Your task to perform on an android device: turn vacation reply on in the gmail app Image 0: 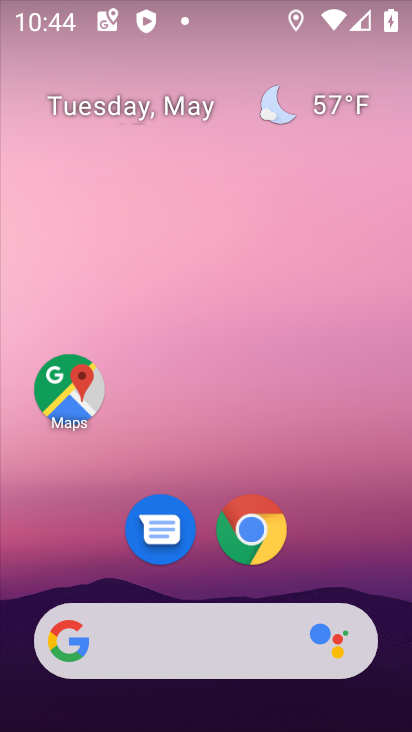
Step 0: drag from (201, 568) to (202, 55)
Your task to perform on an android device: turn vacation reply on in the gmail app Image 1: 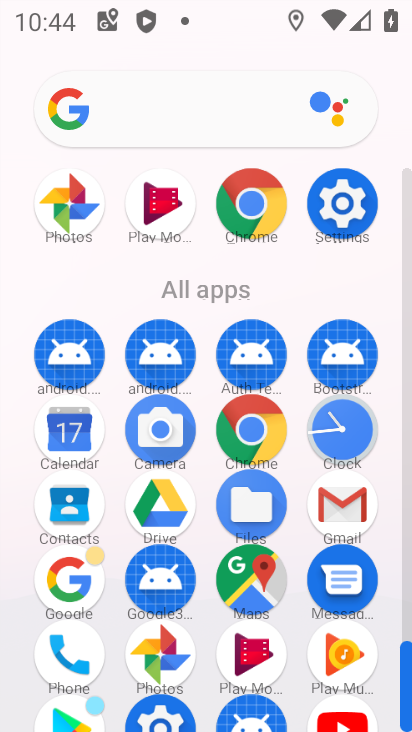
Step 1: click (351, 492)
Your task to perform on an android device: turn vacation reply on in the gmail app Image 2: 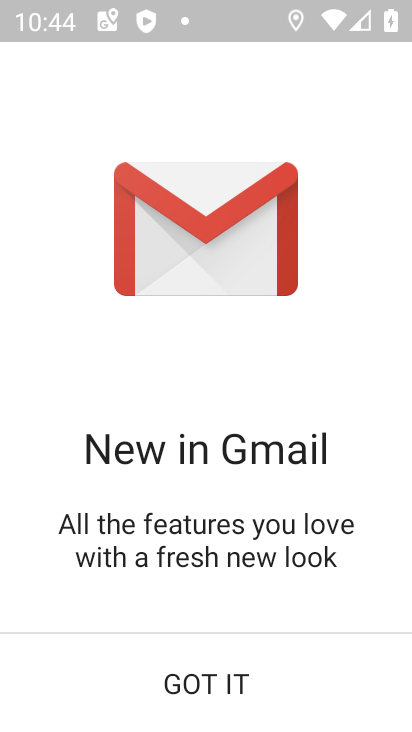
Step 2: click (178, 699)
Your task to perform on an android device: turn vacation reply on in the gmail app Image 3: 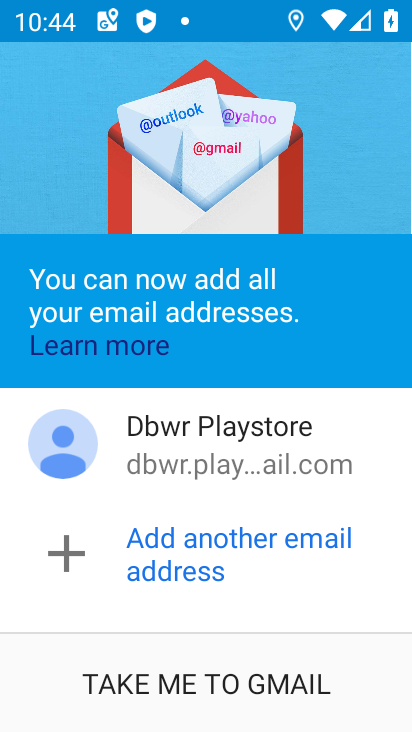
Step 3: click (178, 699)
Your task to perform on an android device: turn vacation reply on in the gmail app Image 4: 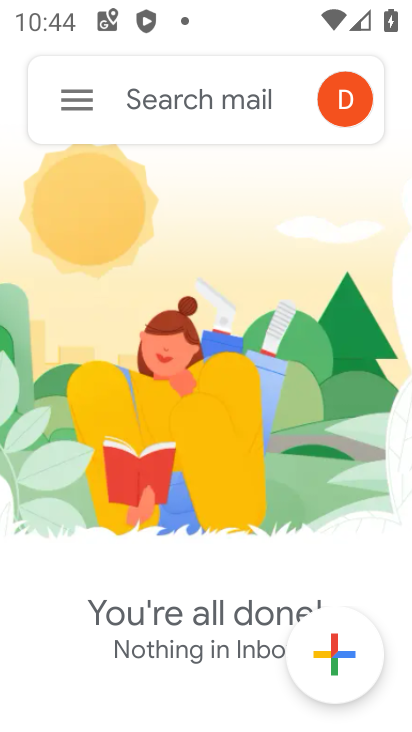
Step 4: click (105, 90)
Your task to perform on an android device: turn vacation reply on in the gmail app Image 5: 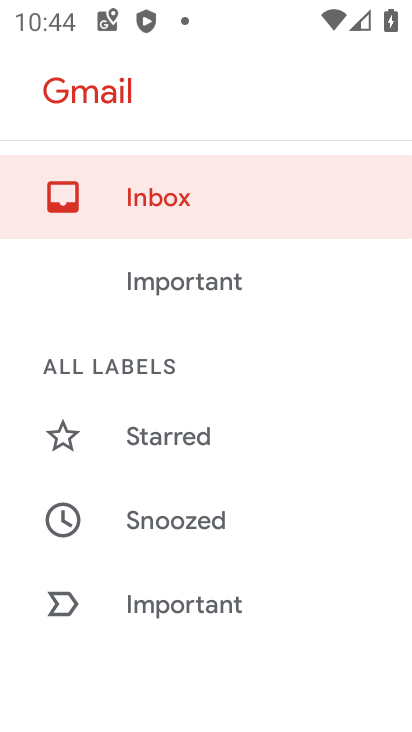
Step 5: drag from (200, 524) to (251, 156)
Your task to perform on an android device: turn vacation reply on in the gmail app Image 6: 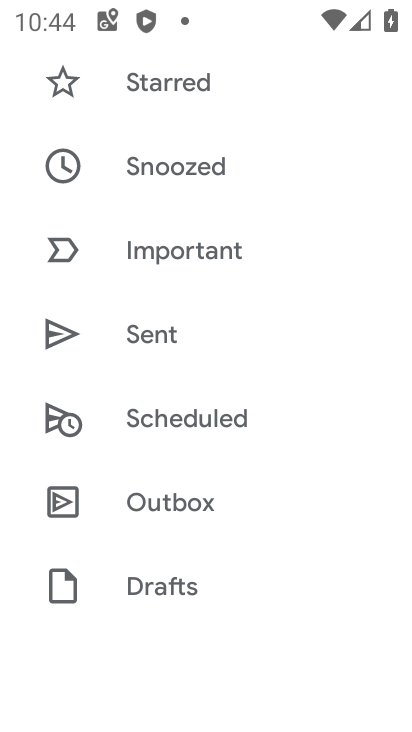
Step 6: drag from (120, 601) to (199, 190)
Your task to perform on an android device: turn vacation reply on in the gmail app Image 7: 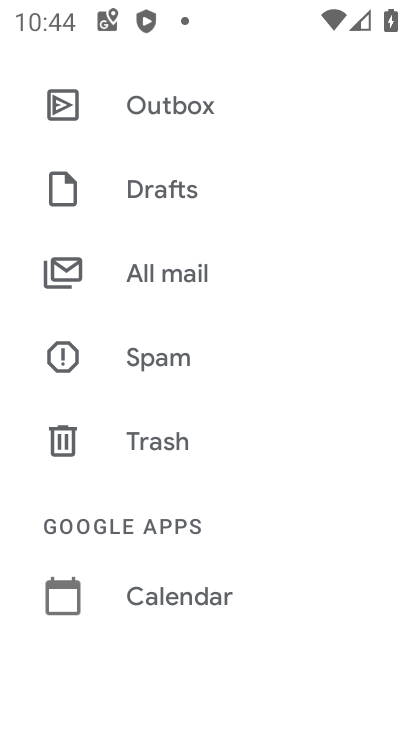
Step 7: drag from (187, 563) to (245, 207)
Your task to perform on an android device: turn vacation reply on in the gmail app Image 8: 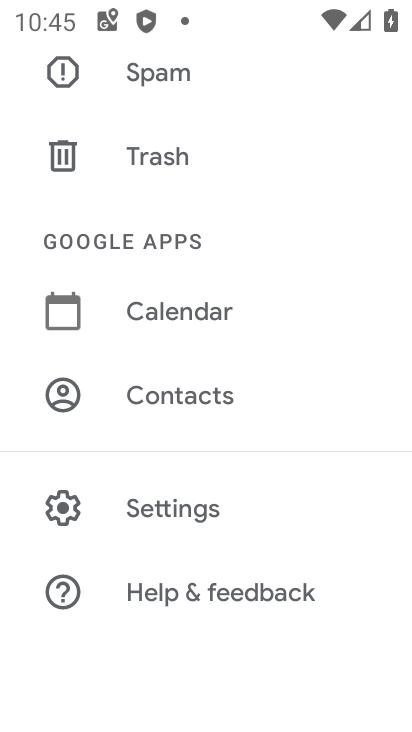
Step 8: click (156, 519)
Your task to perform on an android device: turn vacation reply on in the gmail app Image 9: 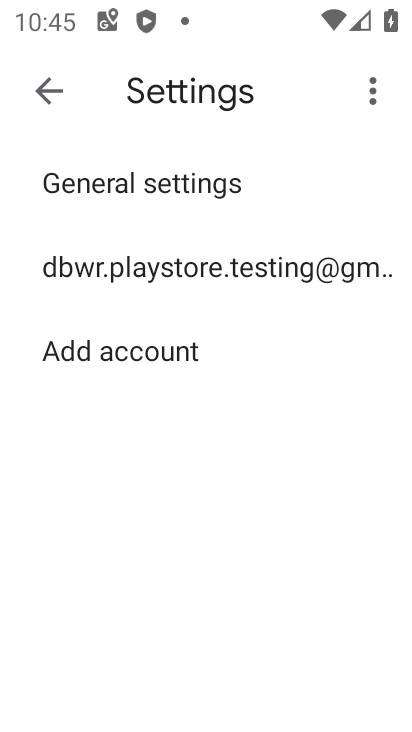
Step 9: click (218, 288)
Your task to perform on an android device: turn vacation reply on in the gmail app Image 10: 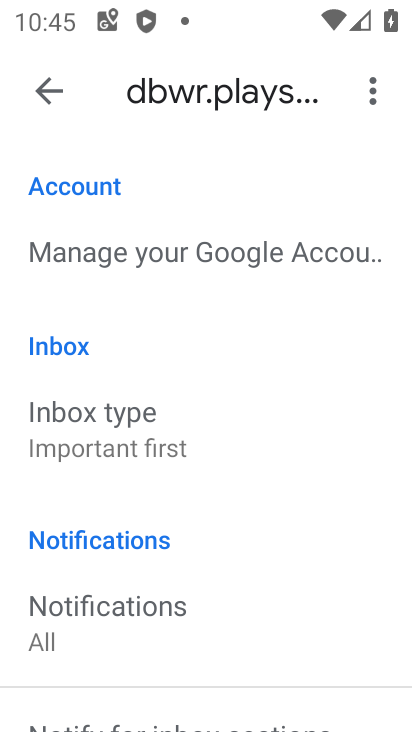
Step 10: drag from (199, 660) to (236, 56)
Your task to perform on an android device: turn vacation reply on in the gmail app Image 11: 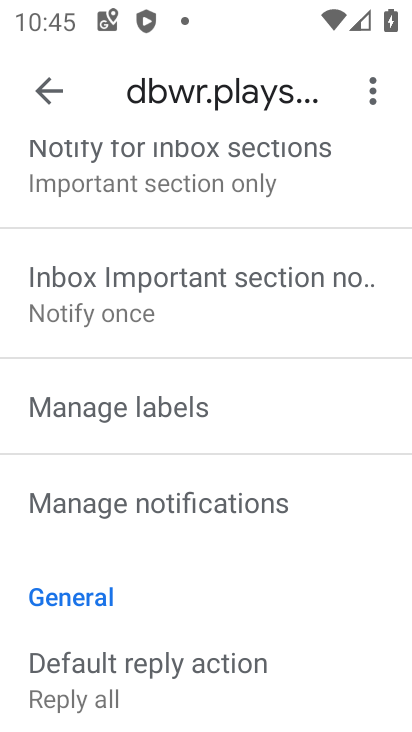
Step 11: drag from (114, 596) to (215, 158)
Your task to perform on an android device: turn vacation reply on in the gmail app Image 12: 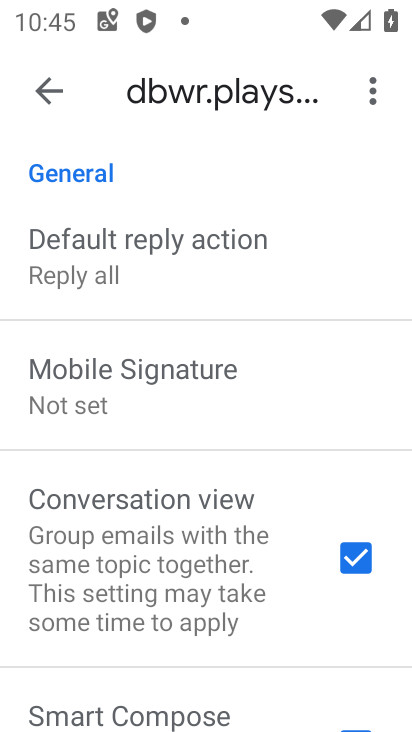
Step 12: drag from (108, 659) to (159, 86)
Your task to perform on an android device: turn vacation reply on in the gmail app Image 13: 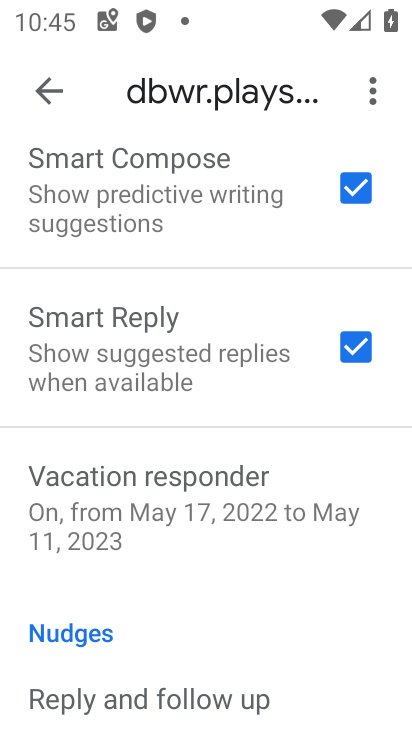
Step 13: click (230, 507)
Your task to perform on an android device: turn vacation reply on in the gmail app Image 14: 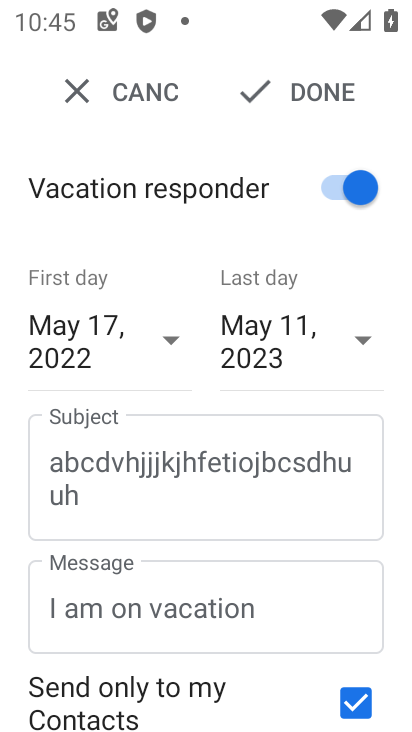
Step 14: click (333, 109)
Your task to perform on an android device: turn vacation reply on in the gmail app Image 15: 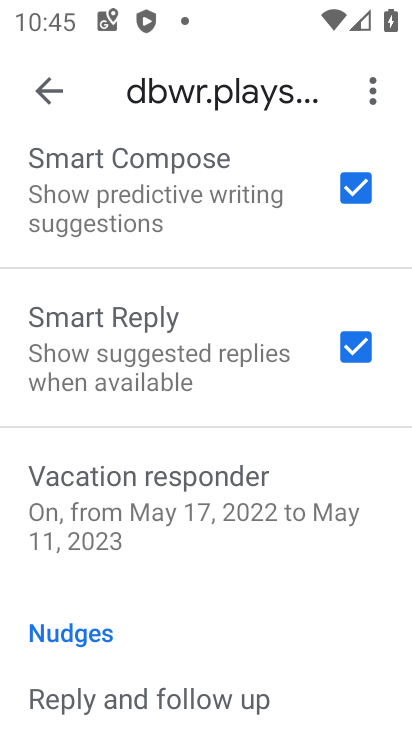
Step 15: task complete